Your task to perform on an android device: open app "Airtel Thanks" (install if not already installed), go to login, and select forgot password Image 0: 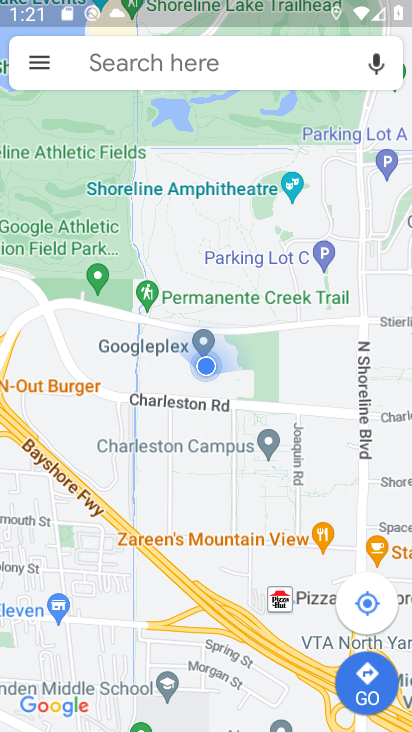
Step 0: press home button
Your task to perform on an android device: open app "Airtel Thanks" (install if not already installed), go to login, and select forgot password Image 1: 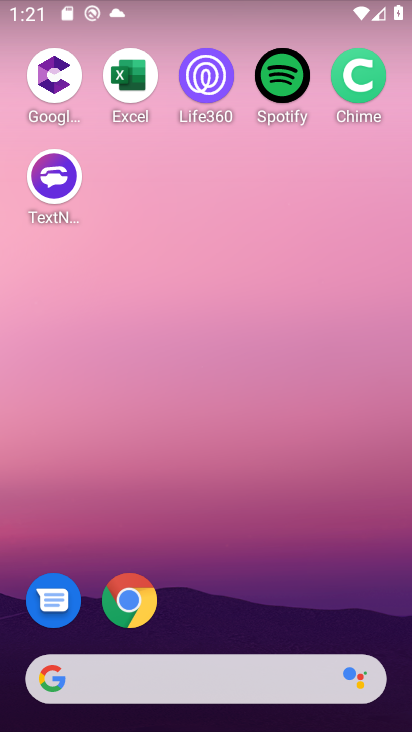
Step 1: drag from (272, 598) to (221, 117)
Your task to perform on an android device: open app "Airtel Thanks" (install if not already installed), go to login, and select forgot password Image 2: 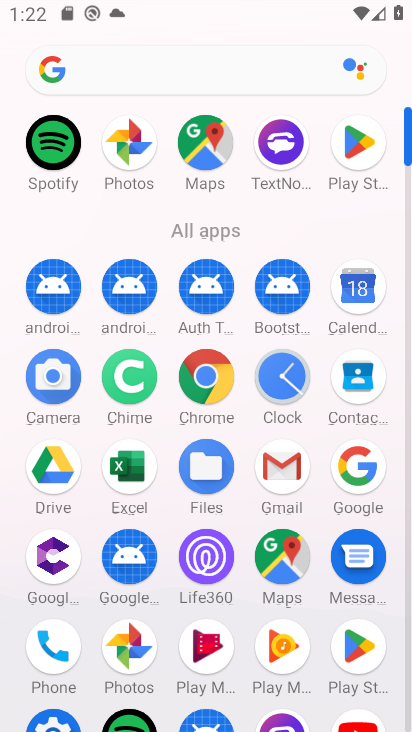
Step 2: click (357, 650)
Your task to perform on an android device: open app "Airtel Thanks" (install if not already installed), go to login, and select forgot password Image 3: 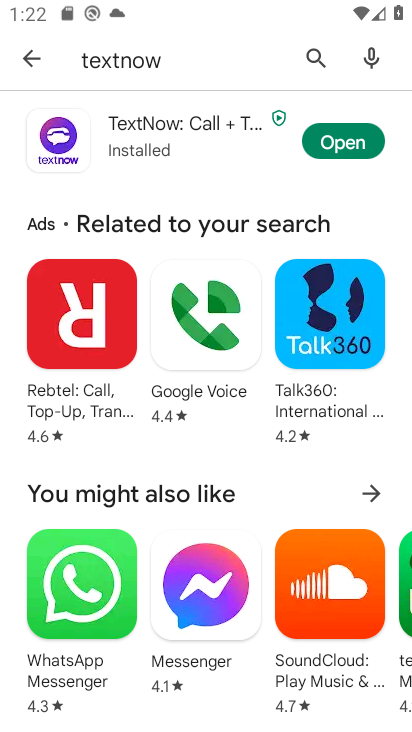
Step 3: click (309, 57)
Your task to perform on an android device: open app "Airtel Thanks" (install if not already installed), go to login, and select forgot password Image 4: 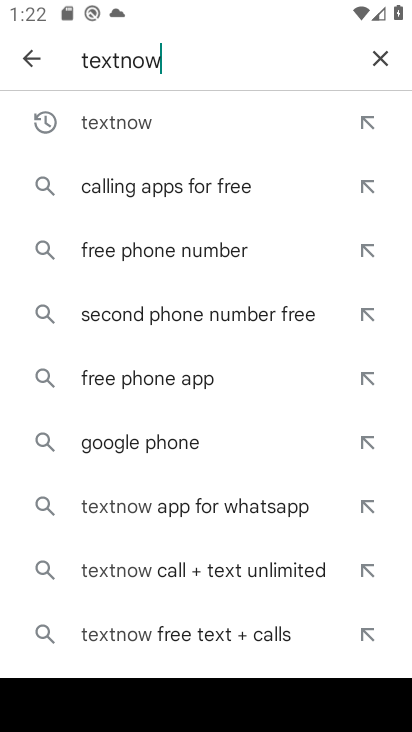
Step 4: click (377, 62)
Your task to perform on an android device: open app "Airtel Thanks" (install if not already installed), go to login, and select forgot password Image 5: 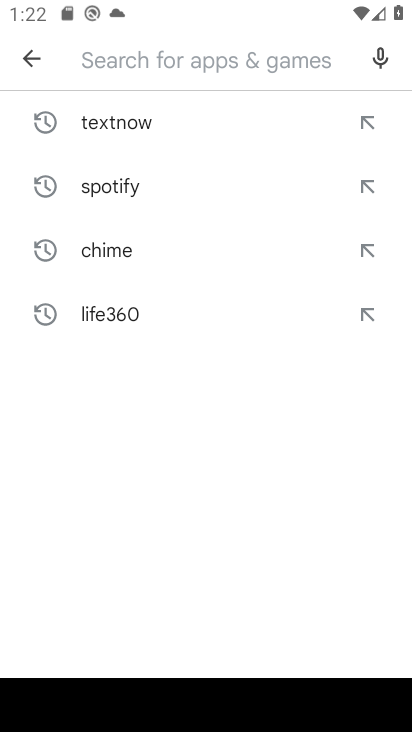
Step 5: type "airtel thanks"
Your task to perform on an android device: open app "Airtel Thanks" (install if not already installed), go to login, and select forgot password Image 6: 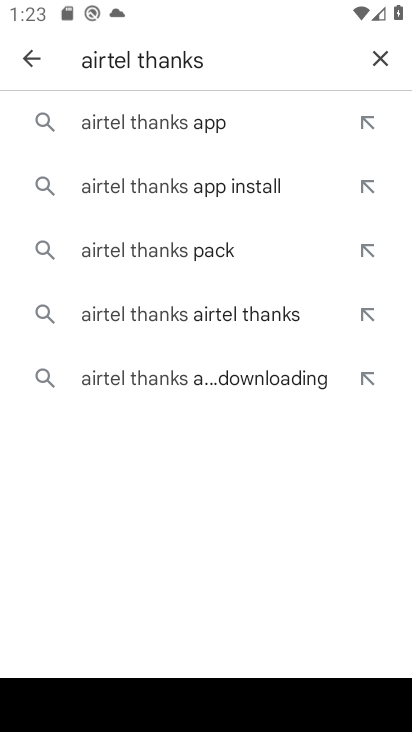
Step 6: click (225, 132)
Your task to perform on an android device: open app "Airtel Thanks" (install if not already installed), go to login, and select forgot password Image 7: 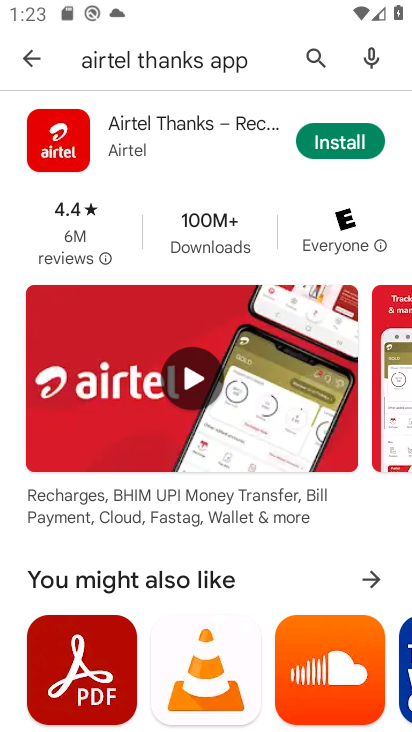
Step 7: click (338, 133)
Your task to perform on an android device: open app "Airtel Thanks" (install if not already installed), go to login, and select forgot password Image 8: 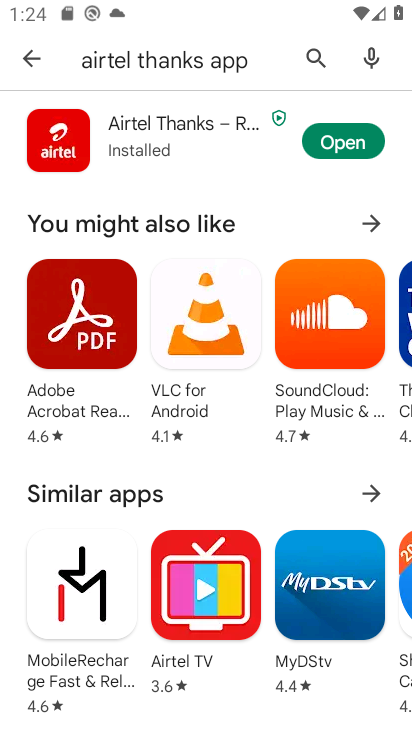
Step 8: click (340, 141)
Your task to perform on an android device: open app "Airtel Thanks" (install if not already installed), go to login, and select forgot password Image 9: 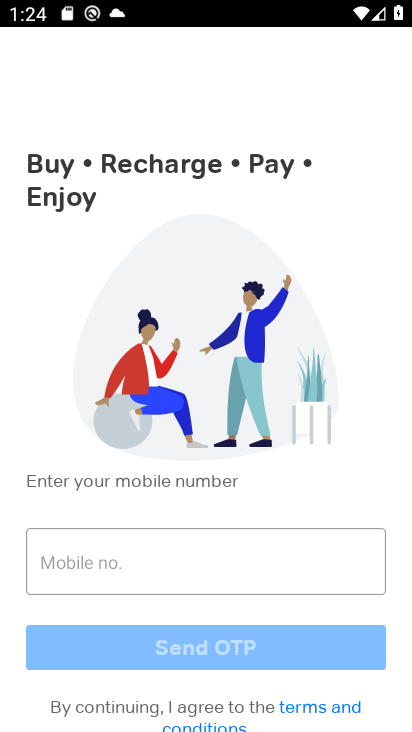
Step 9: task complete